Your task to perform on an android device: Go to Maps Image 0: 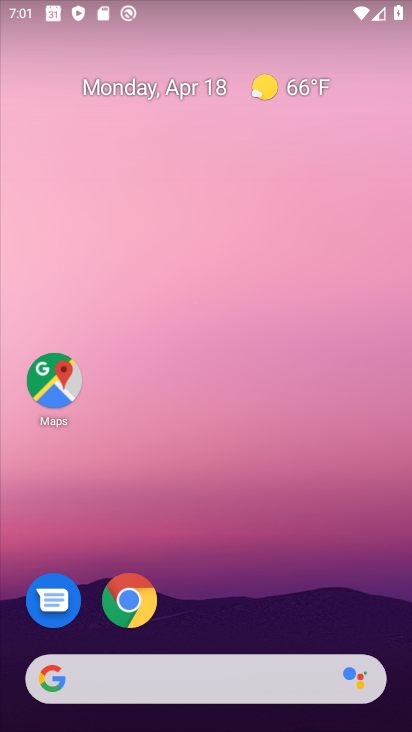
Step 0: click (50, 397)
Your task to perform on an android device: Go to Maps Image 1: 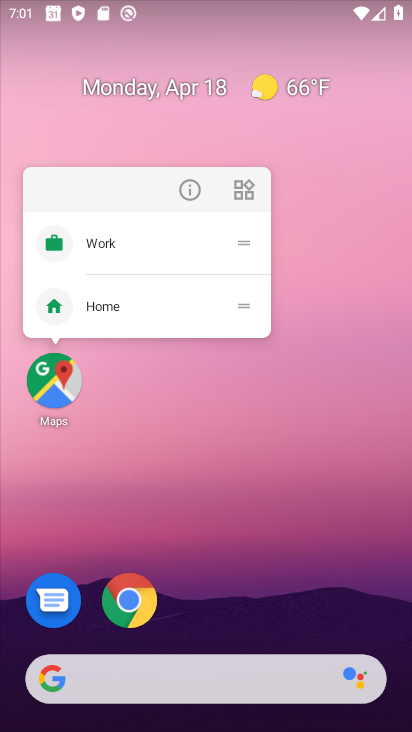
Step 1: click (49, 386)
Your task to perform on an android device: Go to Maps Image 2: 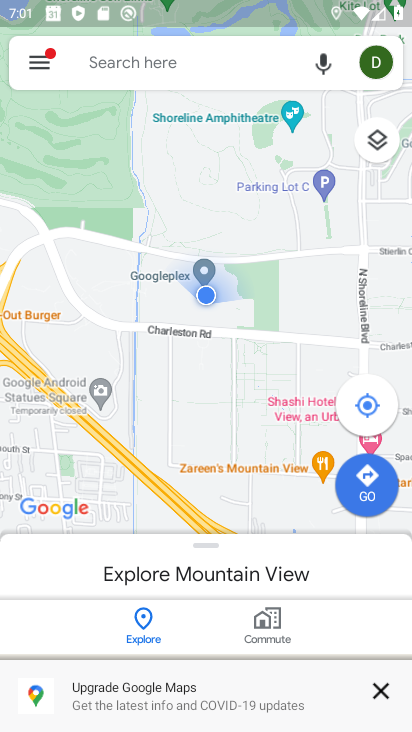
Step 2: task complete